Your task to perform on an android device: Open Youtube and go to "Your channel" Image 0: 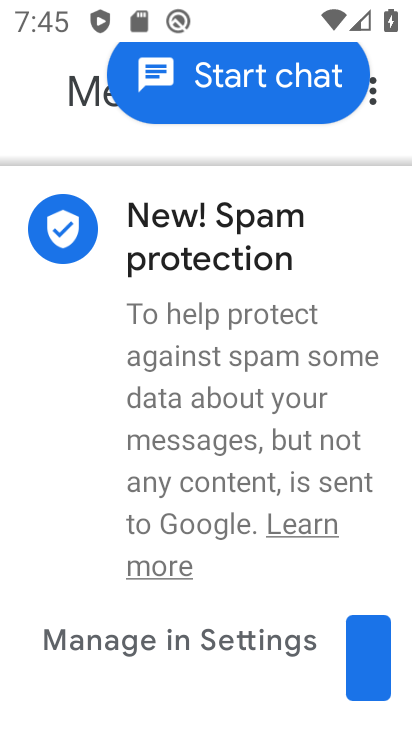
Step 0: press back button
Your task to perform on an android device: Open Youtube and go to "Your channel" Image 1: 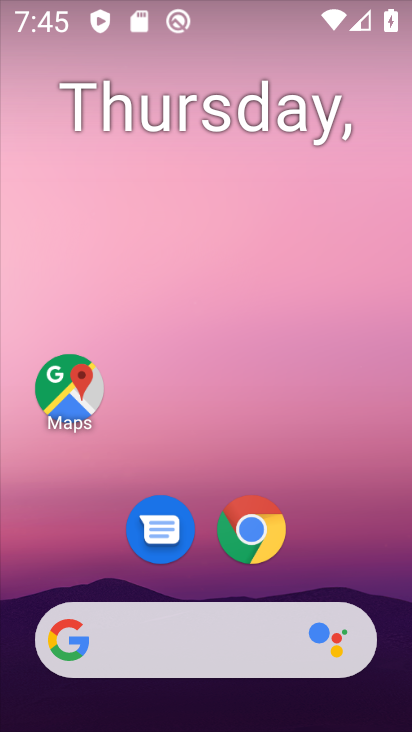
Step 1: drag from (328, 682) to (222, 54)
Your task to perform on an android device: Open Youtube and go to "Your channel" Image 2: 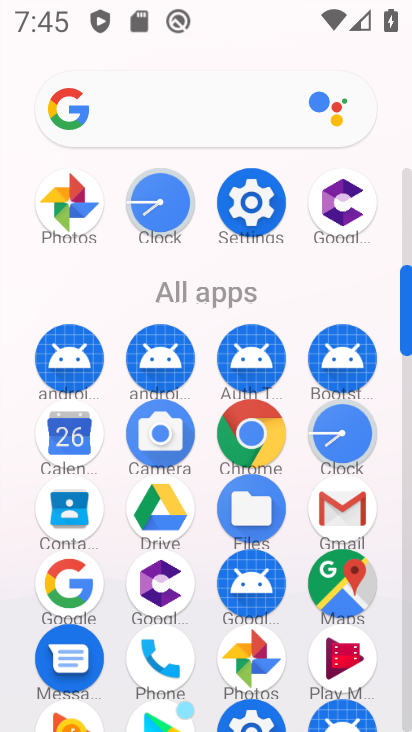
Step 2: drag from (282, 360) to (274, 228)
Your task to perform on an android device: Open Youtube and go to "Your channel" Image 3: 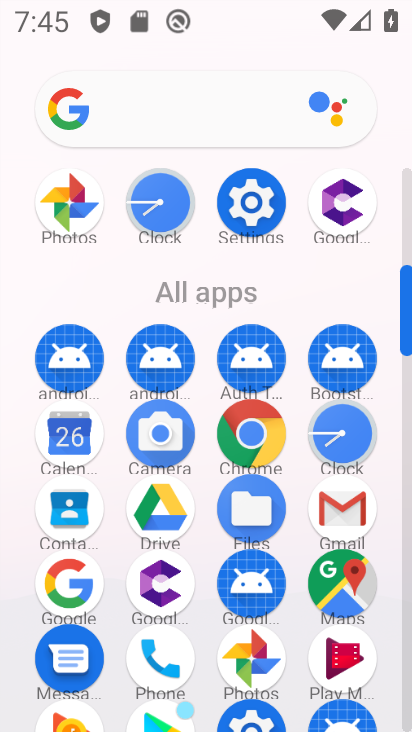
Step 3: drag from (296, 189) to (222, 124)
Your task to perform on an android device: Open Youtube and go to "Your channel" Image 4: 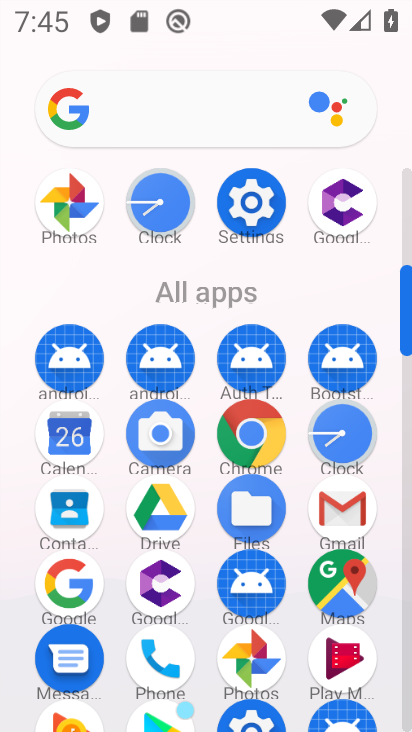
Step 4: drag from (273, 581) to (303, 145)
Your task to perform on an android device: Open Youtube and go to "Your channel" Image 5: 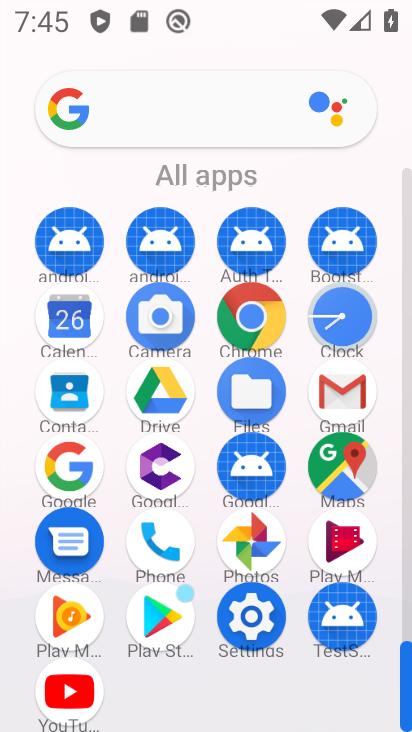
Step 5: drag from (319, 494) to (285, 166)
Your task to perform on an android device: Open Youtube and go to "Your channel" Image 6: 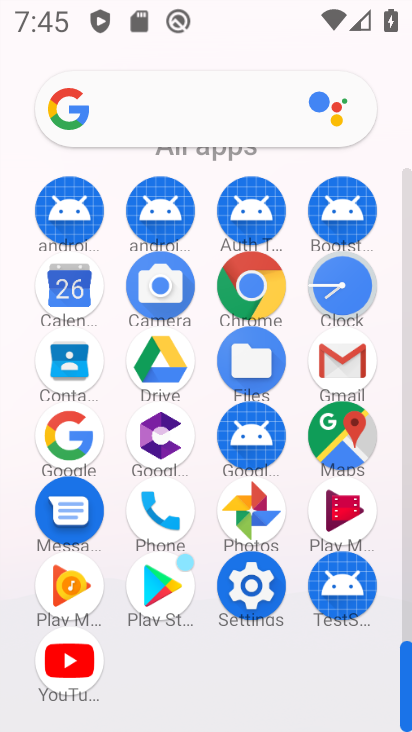
Step 6: drag from (230, 554) to (215, 346)
Your task to perform on an android device: Open Youtube and go to "Your channel" Image 7: 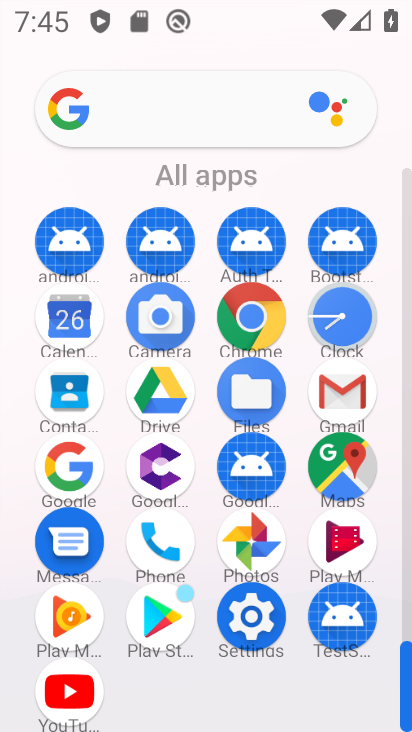
Step 7: click (79, 681)
Your task to perform on an android device: Open Youtube and go to "Your channel" Image 8: 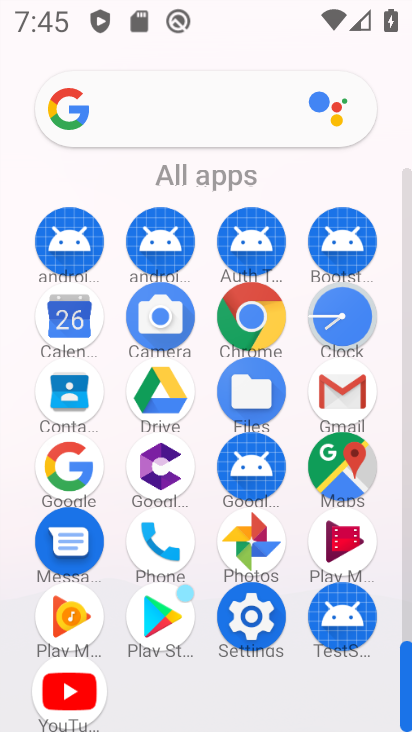
Step 8: click (73, 683)
Your task to perform on an android device: Open Youtube and go to "Your channel" Image 9: 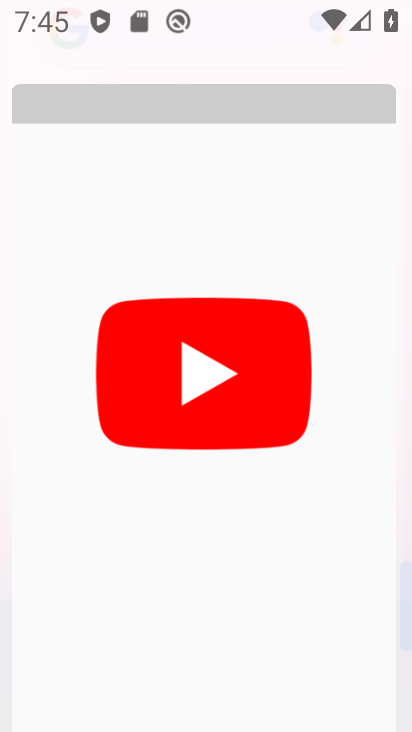
Step 9: click (73, 683)
Your task to perform on an android device: Open Youtube and go to "Your channel" Image 10: 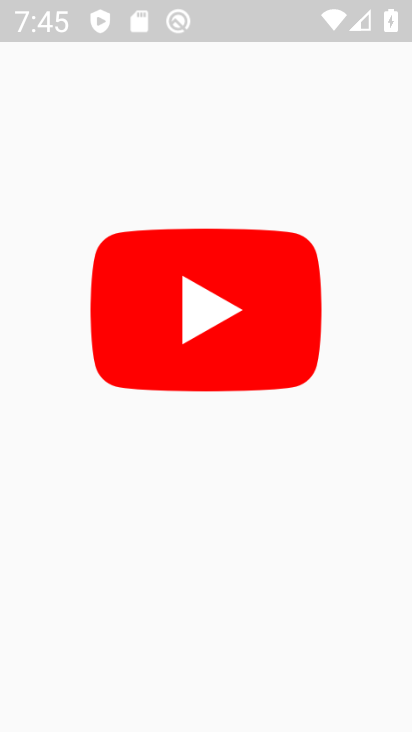
Step 10: click (73, 683)
Your task to perform on an android device: Open Youtube and go to "Your channel" Image 11: 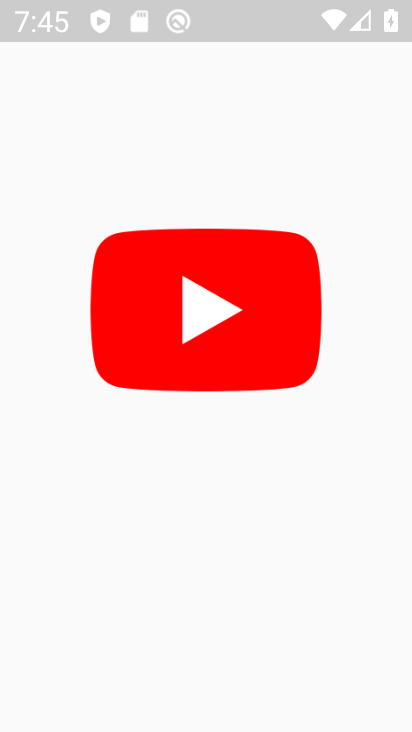
Step 11: click (73, 683)
Your task to perform on an android device: Open Youtube and go to "Your channel" Image 12: 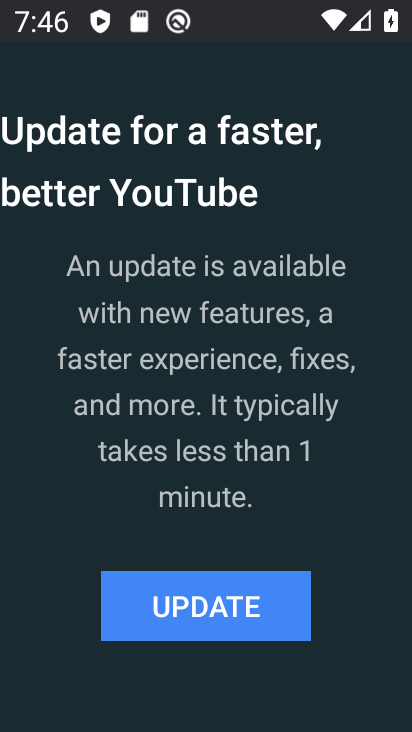
Step 12: click (165, 605)
Your task to perform on an android device: Open Youtube and go to "Your channel" Image 13: 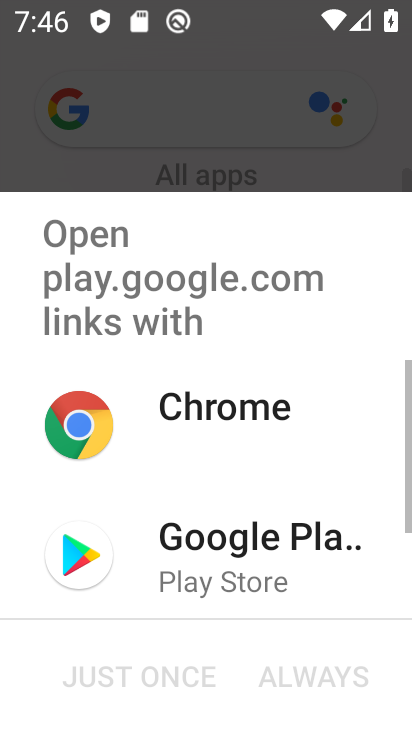
Step 13: click (168, 602)
Your task to perform on an android device: Open Youtube and go to "Your channel" Image 14: 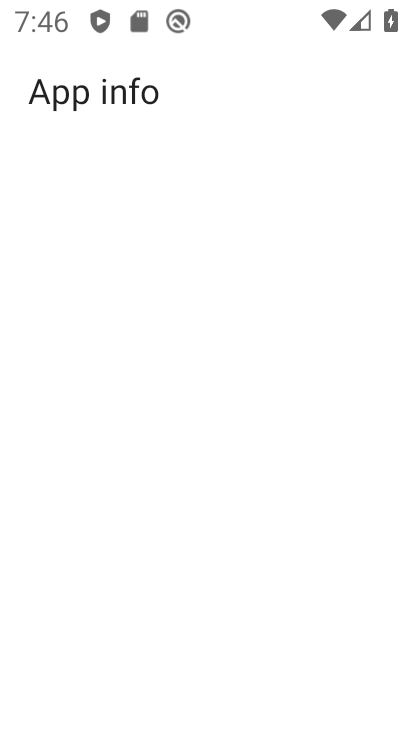
Step 14: click (209, 593)
Your task to perform on an android device: Open Youtube and go to "Your channel" Image 15: 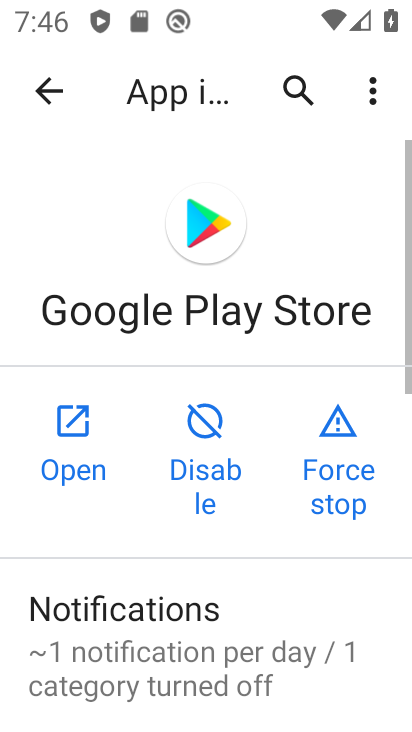
Step 15: click (249, 625)
Your task to perform on an android device: Open Youtube and go to "Your channel" Image 16: 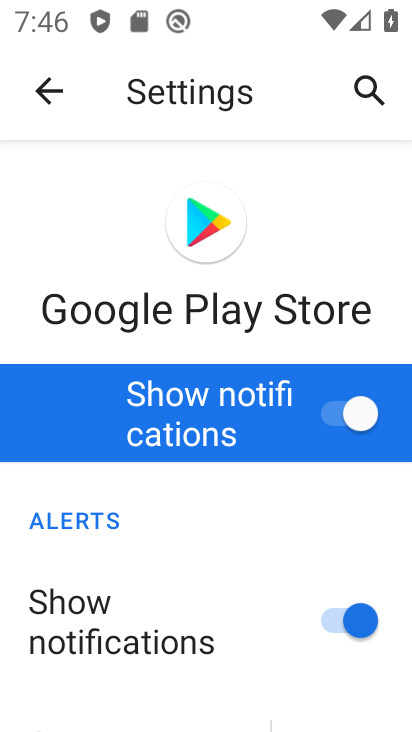
Step 16: click (42, 96)
Your task to perform on an android device: Open Youtube and go to "Your channel" Image 17: 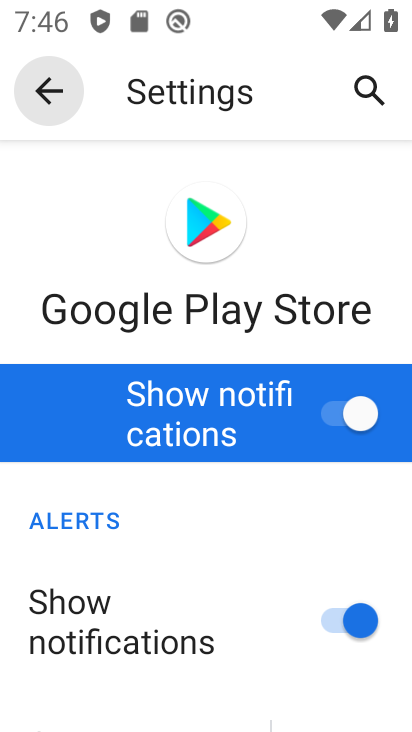
Step 17: click (42, 96)
Your task to perform on an android device: Open Youtube and go to "Your channel" Image 18: 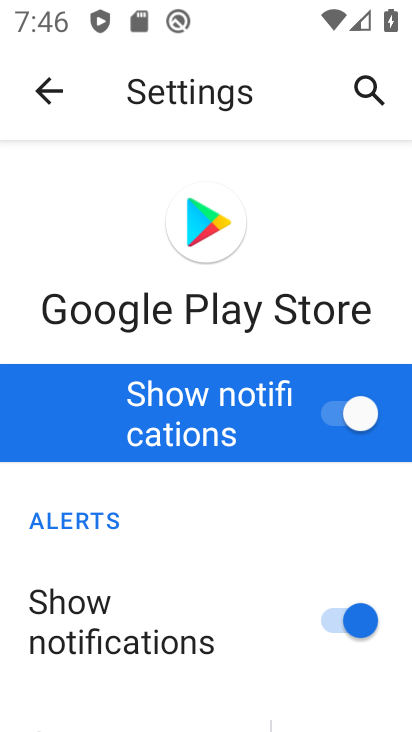
Step 18: click (42, 96)
Your task to perform on an android device: Open Youtube and go to "Your channel" Image 19: 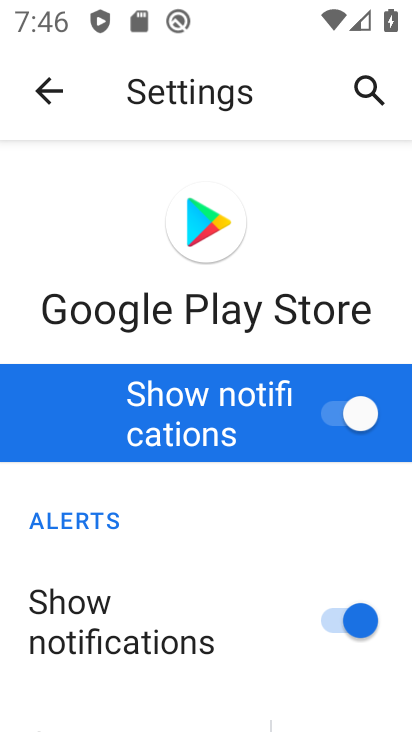
Step 19: click (42, 96)
Your task to perform on an android device: Open Youtube and go to "Your channel" Image 20: 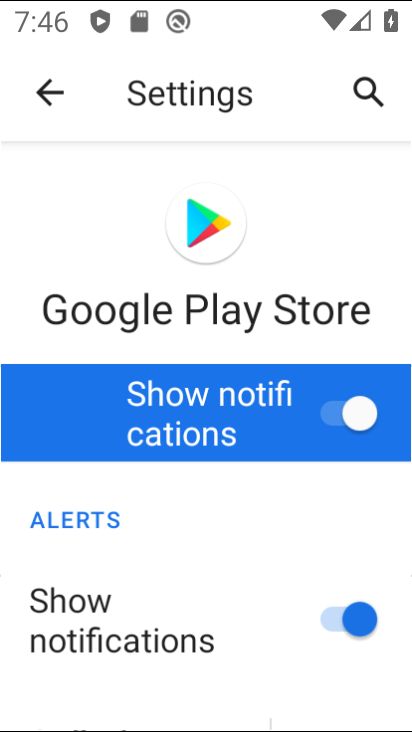
Step 20: click (41, 89)
Your task to perform on an android device: Open Youtube and go to "Your channel" Image 21: 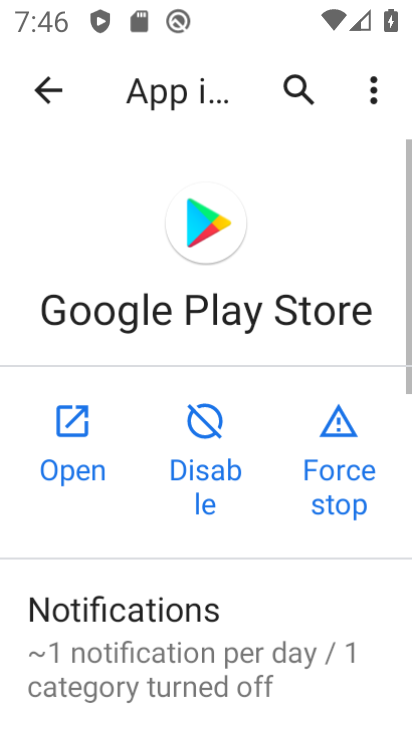
Step 21: click (43, 84)
Your task to perform on an android device: Open Youtube and go to "Your channel" Image 22: 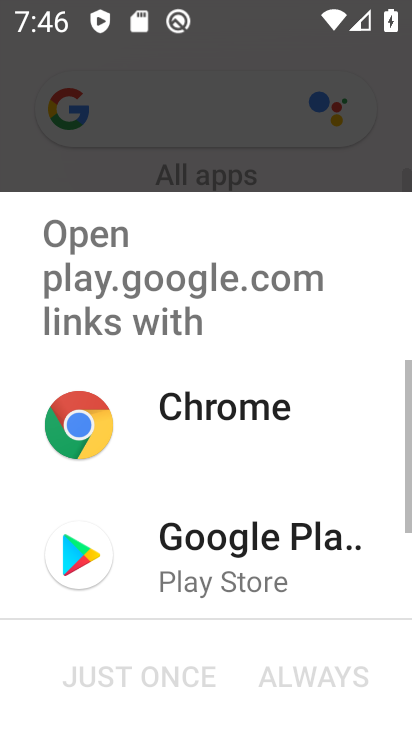
Step 22: click (226, 554)
Your task to perform on an android device: Open Youtube and go to "Your channel" Image 23: 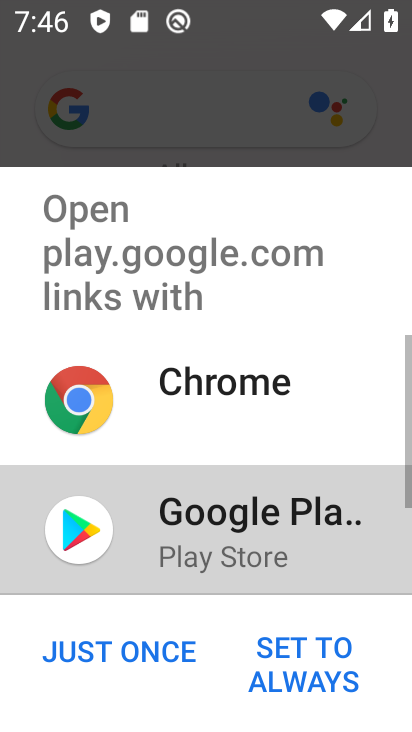
Step 23: click (225, 553)
Your task to perform on an android device: Open Youtube and go to "Your channel" Image 24: 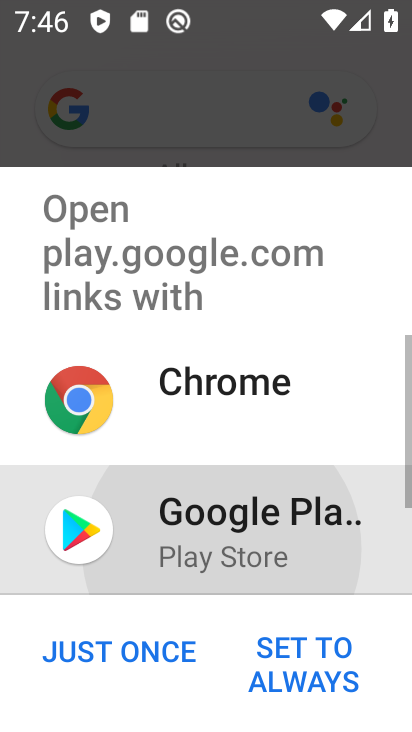
Step 24: click (225, 553)
Your task to perform on an android device: Open Youtube and go to "Your channel" Image 25: 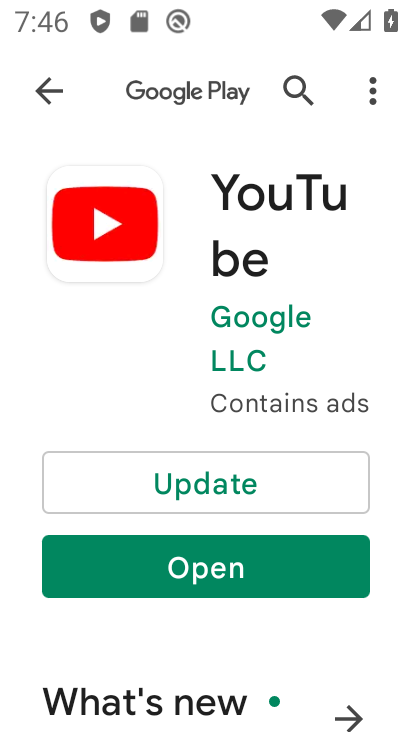
Step 25: click (218, 478)
Your task to perform on an android device: Open Youtube and go to "Your channel" Image 26: 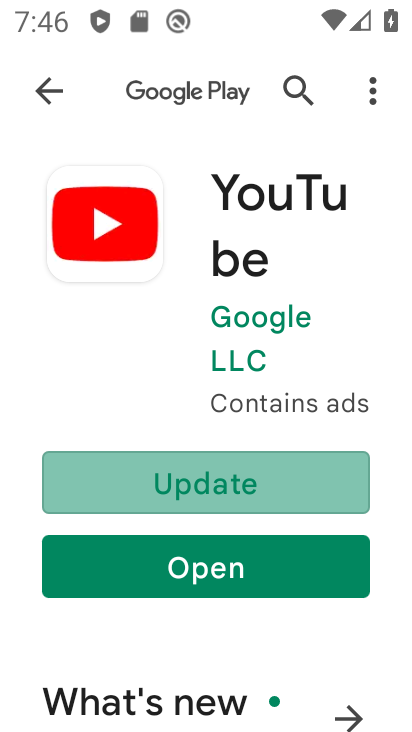
Step 26: click (217, 480)
Your task to perform on an android device: Open Youtube and go to "Your channel" Image 27: 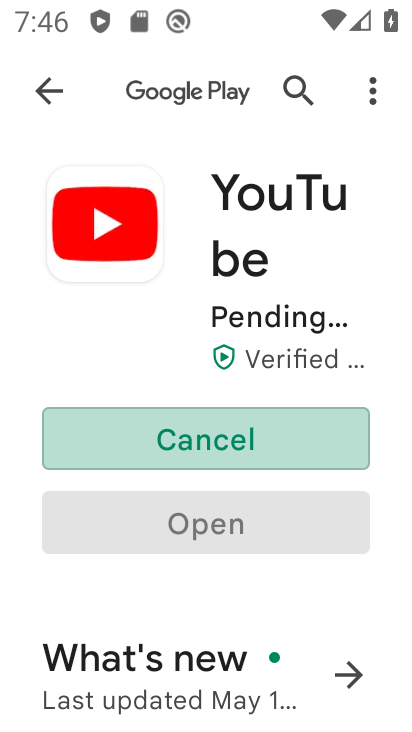
Step 27: click (217, 480)
Your task to perform on an android device: Open Youtube and go to "Your channel" Image 28: 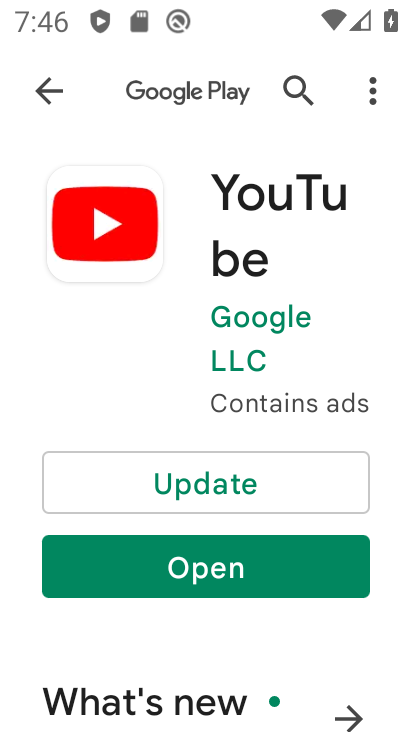
Step 28: click (223, 483)
Your task to perform on an android device: Open Youtube and go to "Your channel" Image 29: 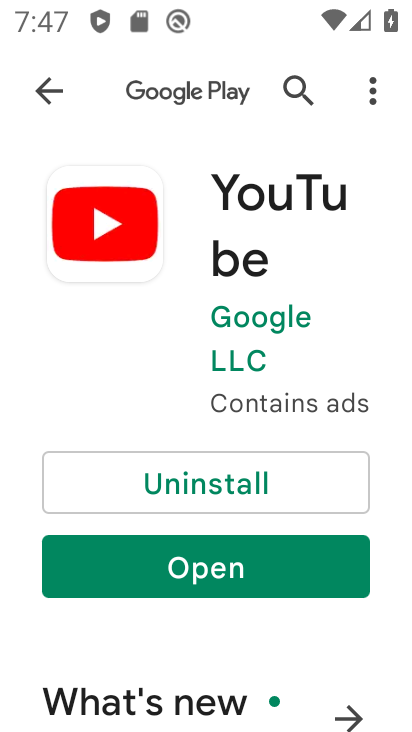
Step 29: click (210, 577)
Your task to perform on an android device: Open Youtube and go to "Your channel" Image 30: 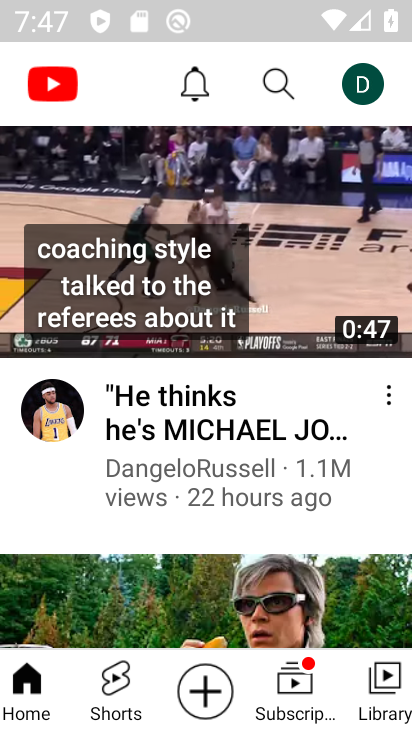
Step 30: task complete